Your task to perform on an android device: Go to CNN.com Image 0: 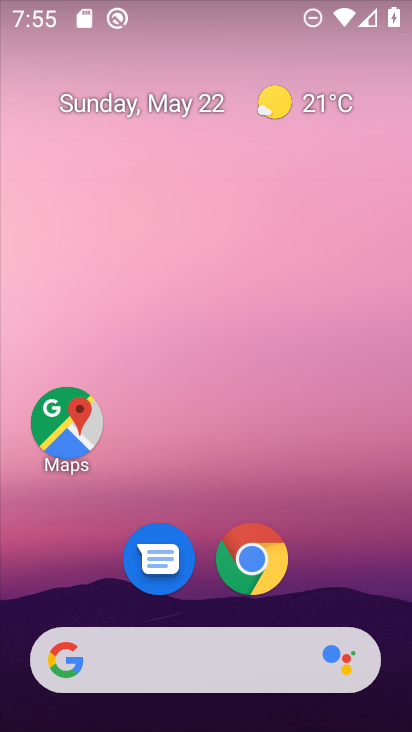
Step 0: press home button
Your task to perform on an android device: Go to CNN.com Image 1: 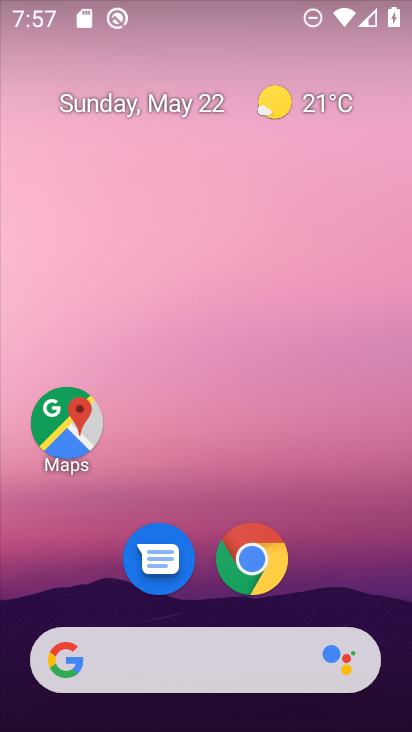
Step 1: click (271, 594)
Your task to perform on an android device: Go to CNN.com Image 2: 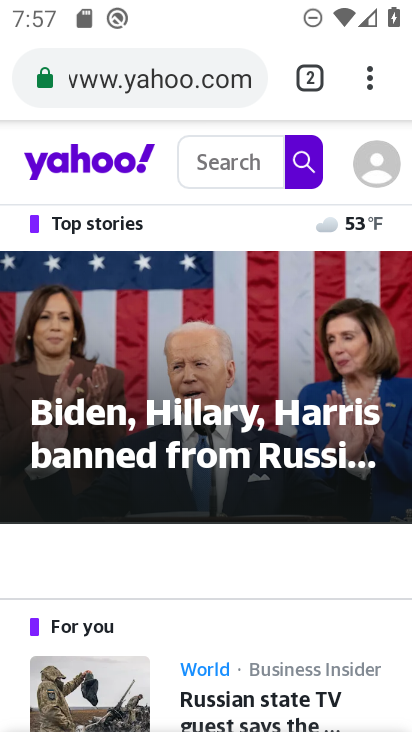
Step 2: click (170, 72)
Your task to perform on an android device: Go to CNN.com Image 3: 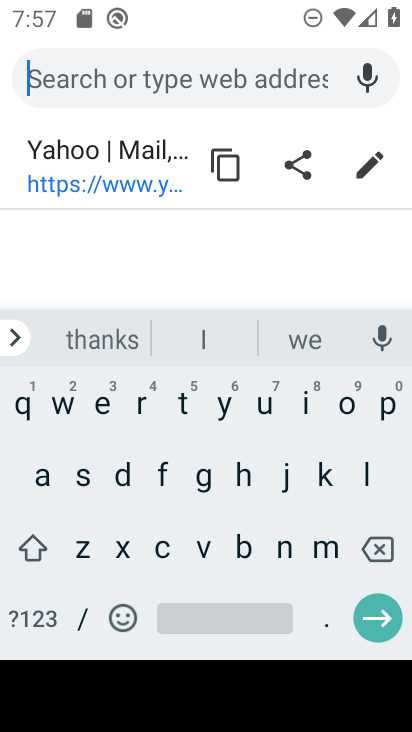
Step 3: click (155, 552)
Your task to perform on an android device: Go to CNN.com Image 4: 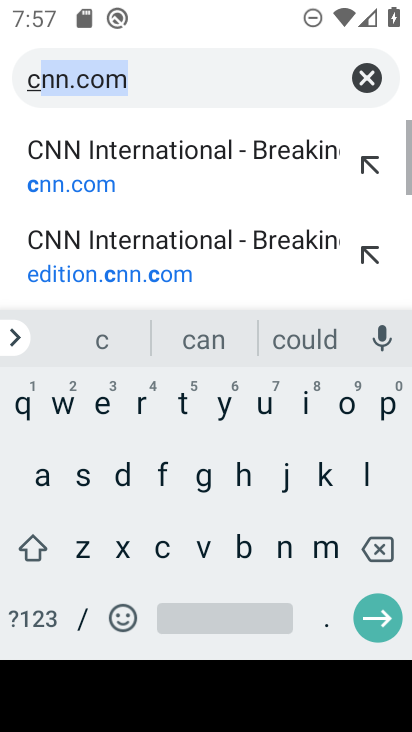
Step 4: click (276, 547)
Your task to perform on an android device: Go to CNN.com Image 5: 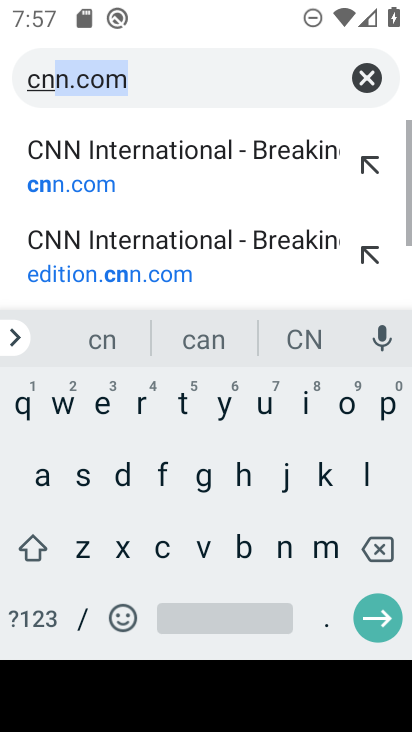
Step 5: click (159, 67)
Your task to perform on an android device: Go to CNN.com Image 6: 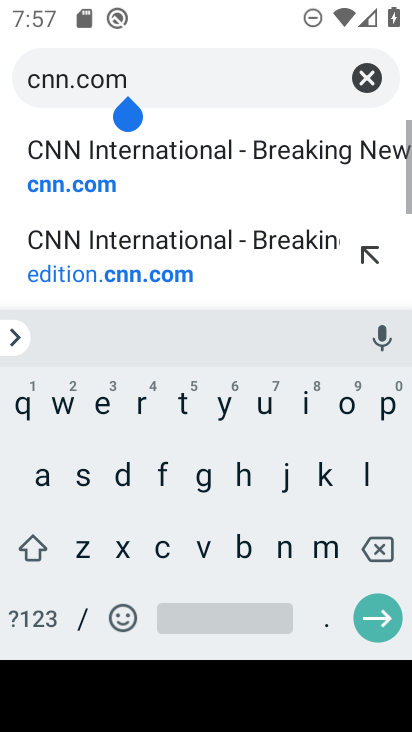
Step 6: click (388, 614)
Your task to perform on an android device: Go to CNN.com Image 7: 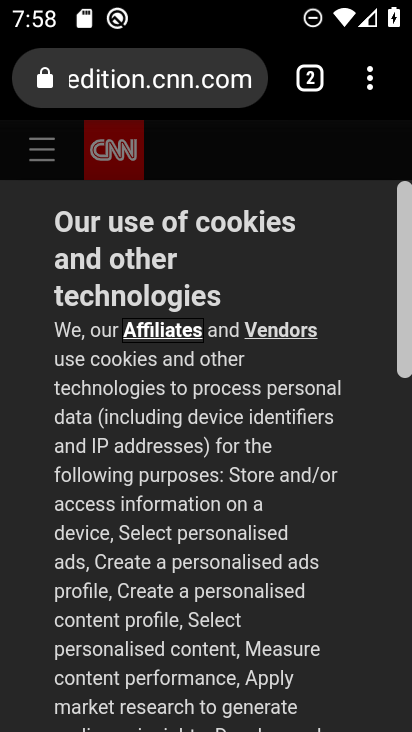
Step 7: drag from (227, 615) to (295, 350)
Your task to perform on an android device: Go to CNN.com Image 8: 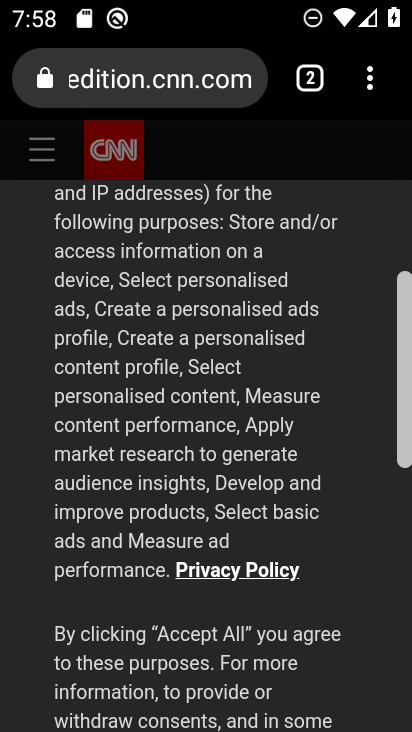
Step 8: drag from (178, 676) to (214, 314)
Your task to perform on an android device: Go to CNN.com Image 9: 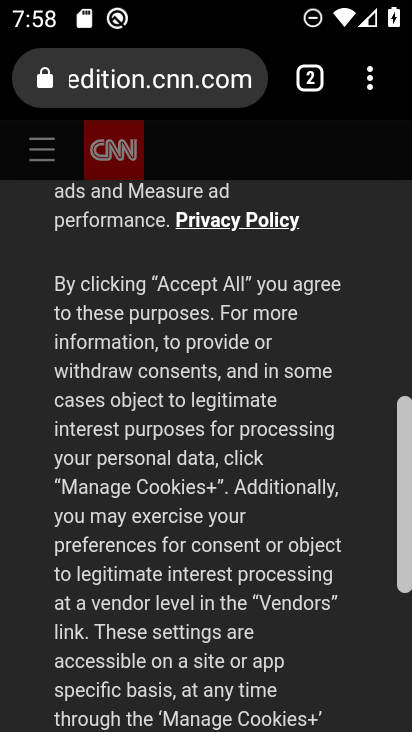
Step 9: drag from (219, 634) to (237, 323)
Your task to perform on an android device: Go to CNN.com Image 10: 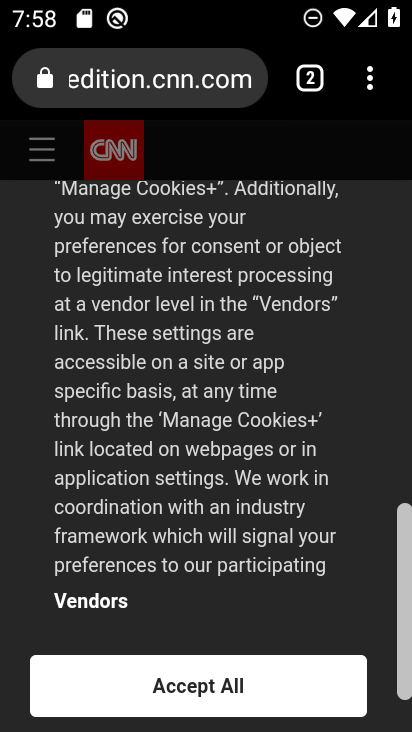
Step 10: drag from (223, 514) to (262, 310)
Your task to perform on an android device: Go to CNN.com Image 11: 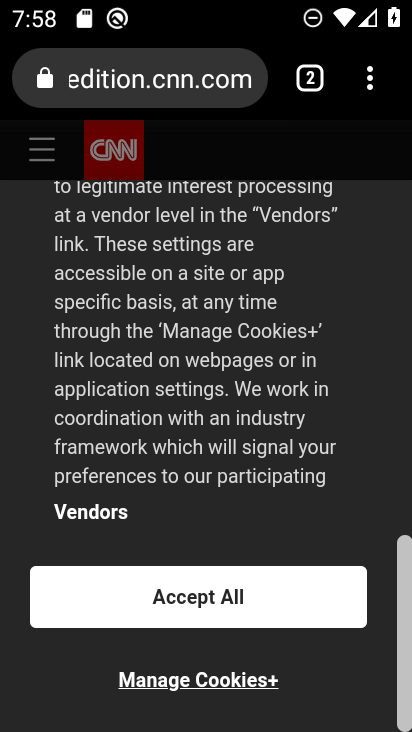
Step 11: click (231, 609)
Your task to perform on an android device: Go to CNN.com Image 12: 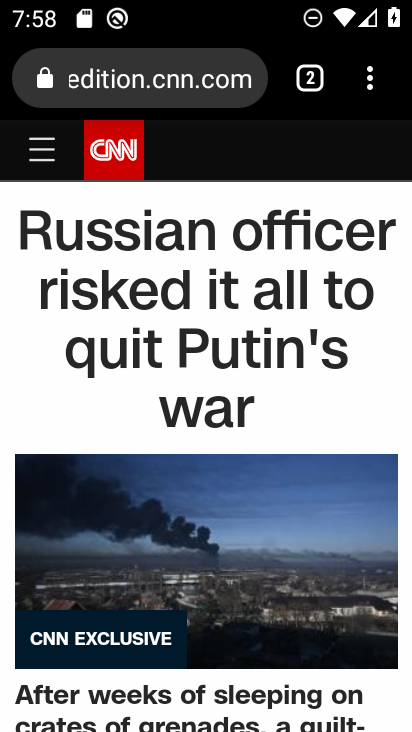
Step 12: task complete